Your task to perform on an android device: Go to CNN.com Image 0: 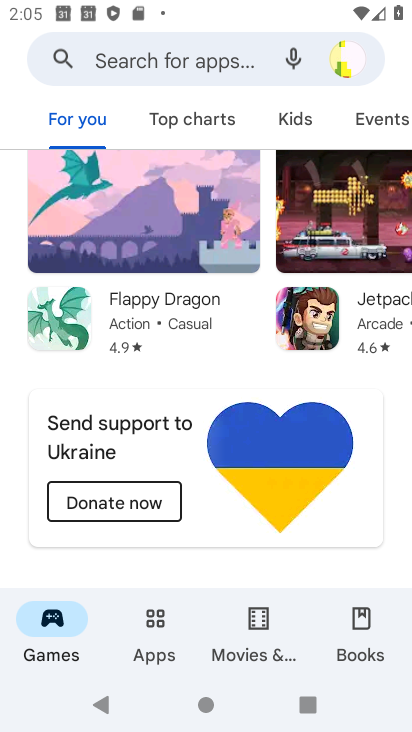
Step 0: press home button
Your task to perform on an android device: Go to CNN.com Image 1: 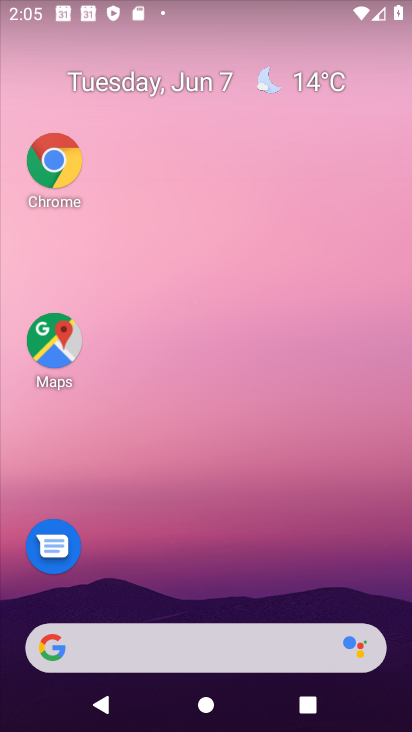
Step 1: drag from (203, 582) to (317, 92)
Your task to perform on an android device: Go to CNN.com Image 2: 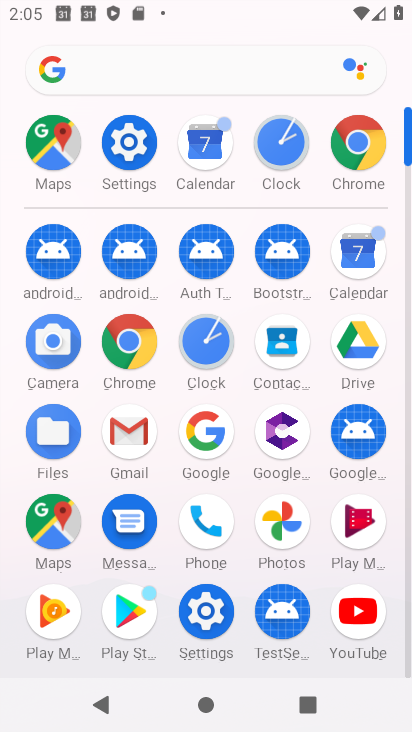
Step 2: click (204, 65)
Your task to perform on an android device: Go to CNN.com Image 3: 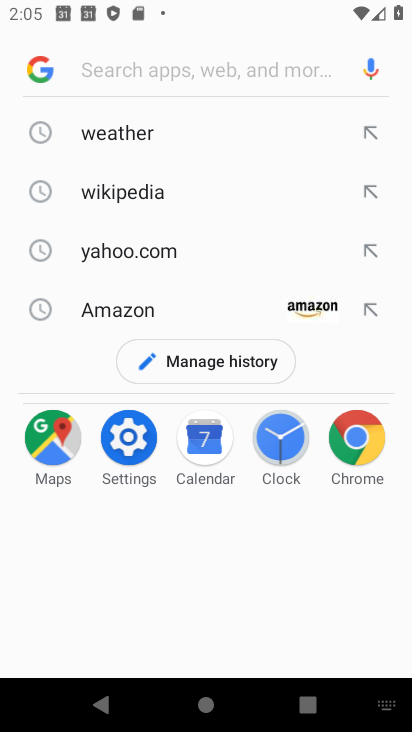
Step 3: type " CNN.com"
Your task to perform on an android device: Go to CNN.com Image 4: 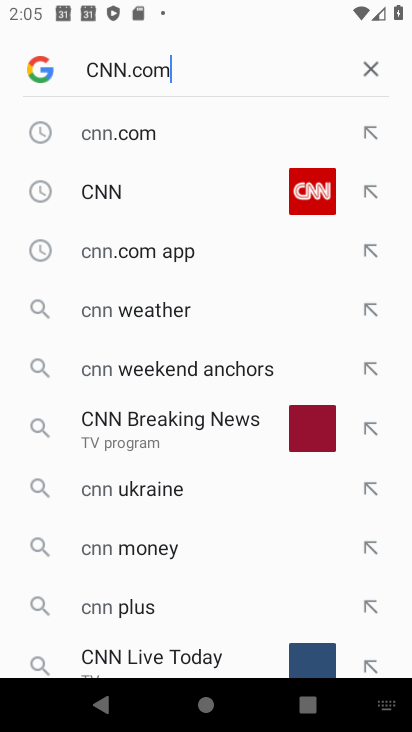
Step 4: type ""
Your task to perform on an android device: Go to CNN.com Image 5: 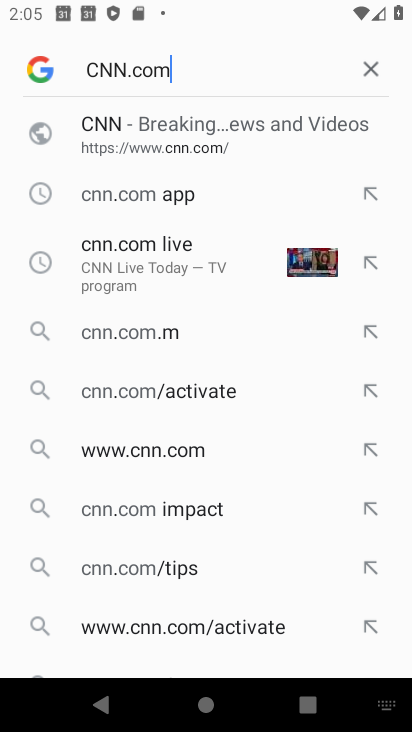
Step 5: click (120, 132)
Your task to perform on an android device: Go to CNN.com Image 6: 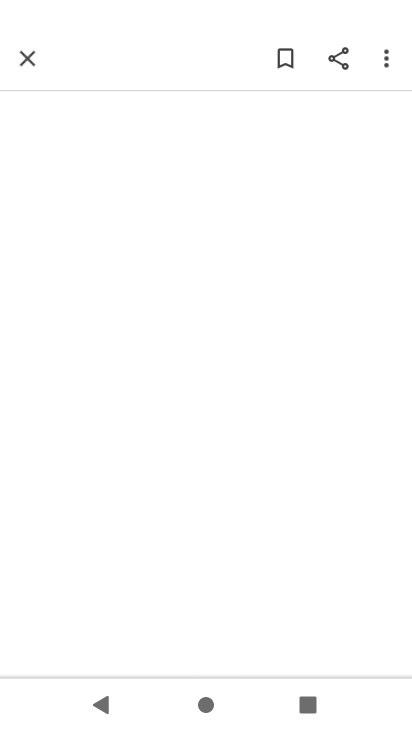
Step 6: task complete